Your task to perform on an android device: turn on the 24-hour format for clock Image 0: 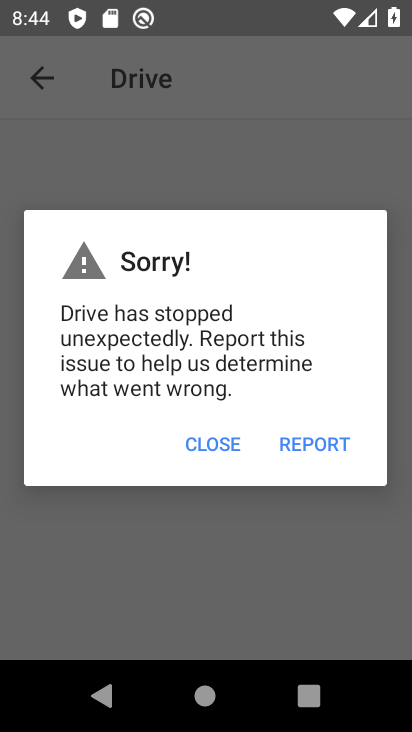
Step 0: press home button
Your task to perform on an android device: turn on the 24-hour format for clock Image 1: 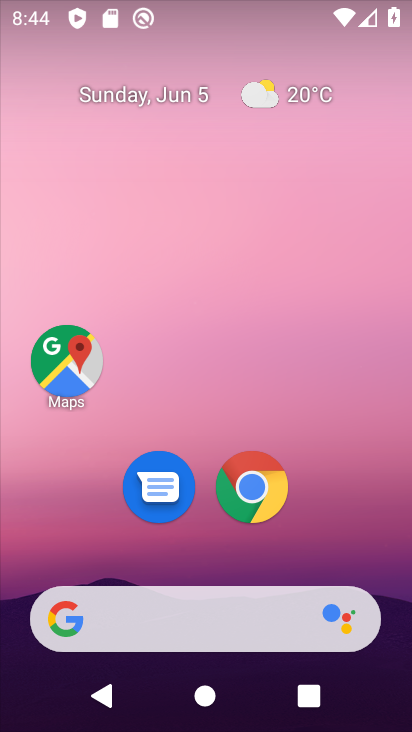
Step 1: drag from (213, 591) to (264, 181)
Your task to perform on an android device: turn on the 24-hour format for clock Image 2: 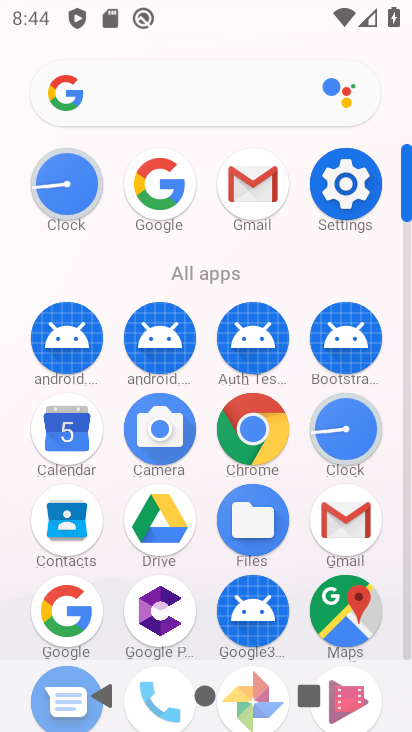
Step 2: click (383, 438)
Your task to perform on an android device: turn on the 24-hour format for clock Image 3: 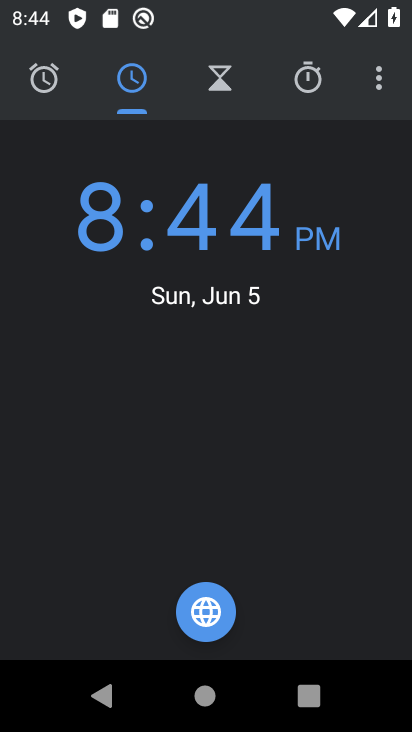
Step 3: click (376, 89)
Your task to perform on an android device: turn on the 24-hour format for clock Image 4: 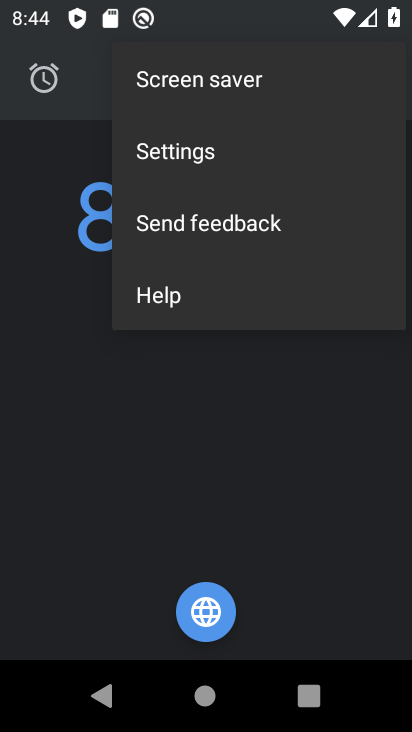
Step 4: click (210, 162)
Your task to perform on an android device: turn on the 24-hour format for clock Image 5: 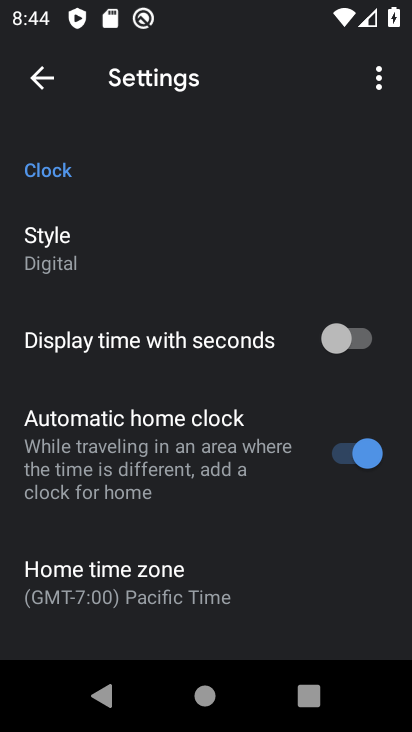
Step 5: drag from (186, 560) to (243, 306)
Your task to perform on an android device: turn on the 24-hour format for clock Image 6: 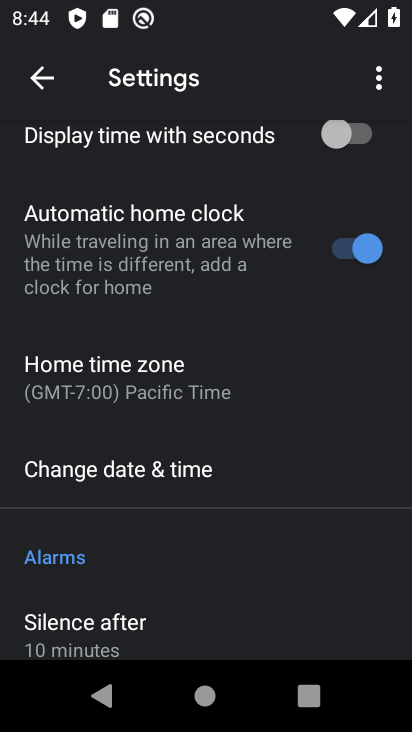
Step 6: click (171, 469)
Your task to perform on an android device: turn on the 24-hour format for clock Image 7: 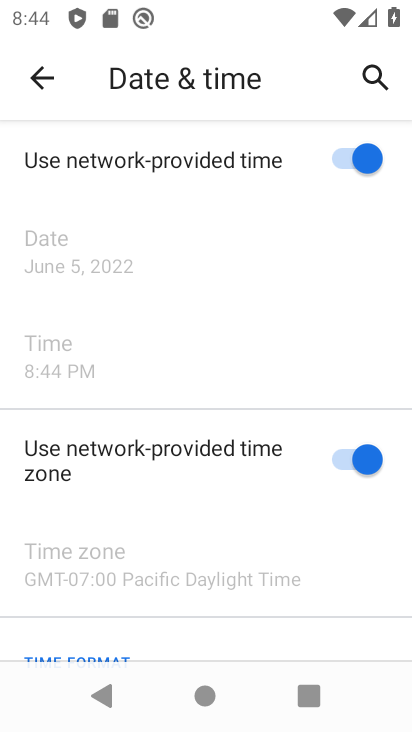
Step 7: task complete